Your task to perform on an android device: open device folders in google photos Image 0: 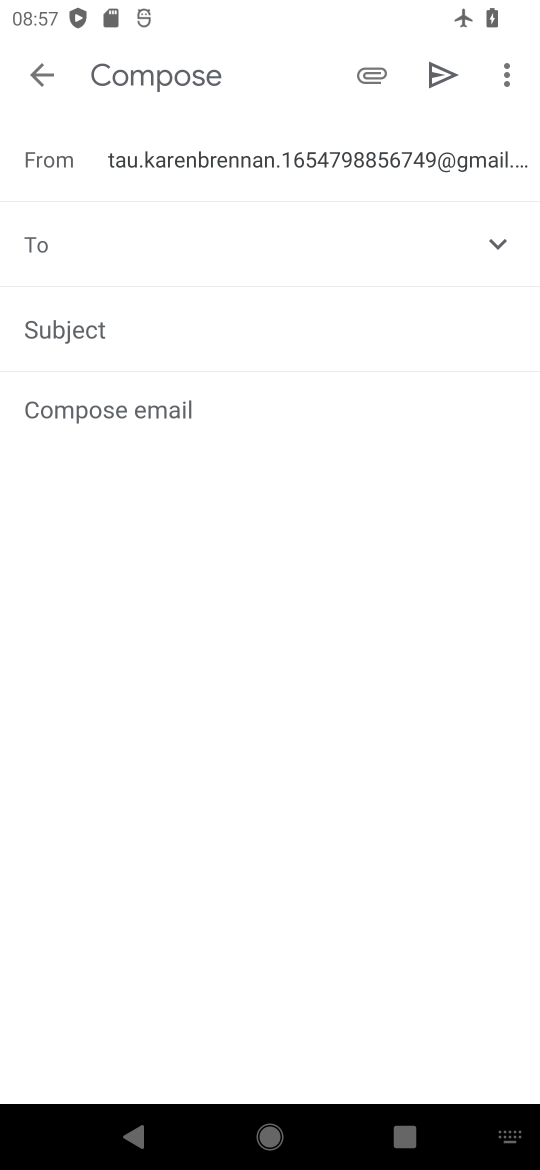
Step 0: press home button
Your task to perform on an android device: open device folders in google photos Image 1: 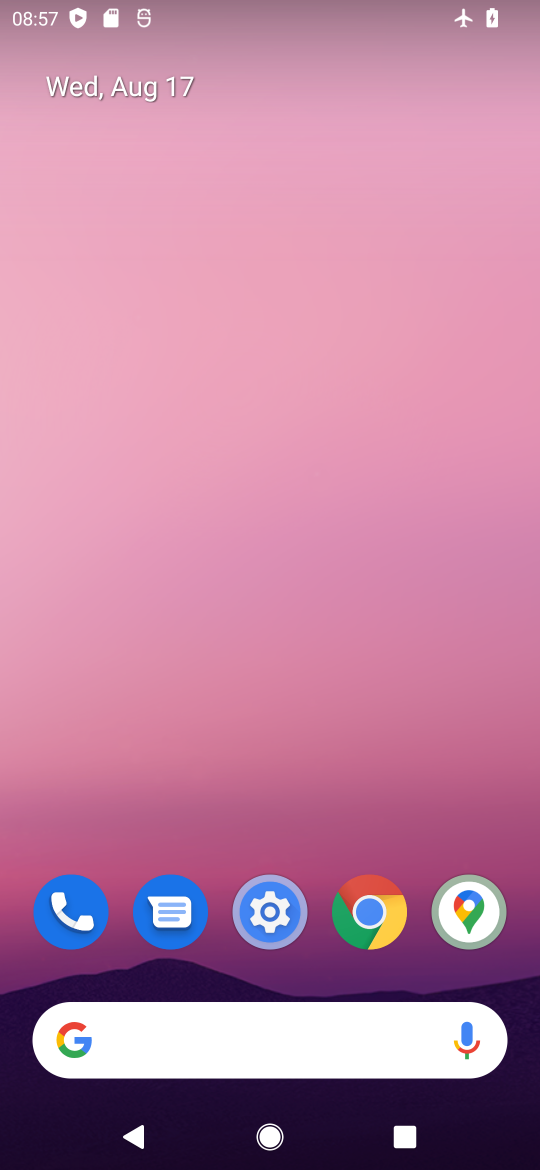
Step 1: drag from (200, 1021) to (200, 178)
Your task to perform on an android device: open device folders in google photos Image 2: 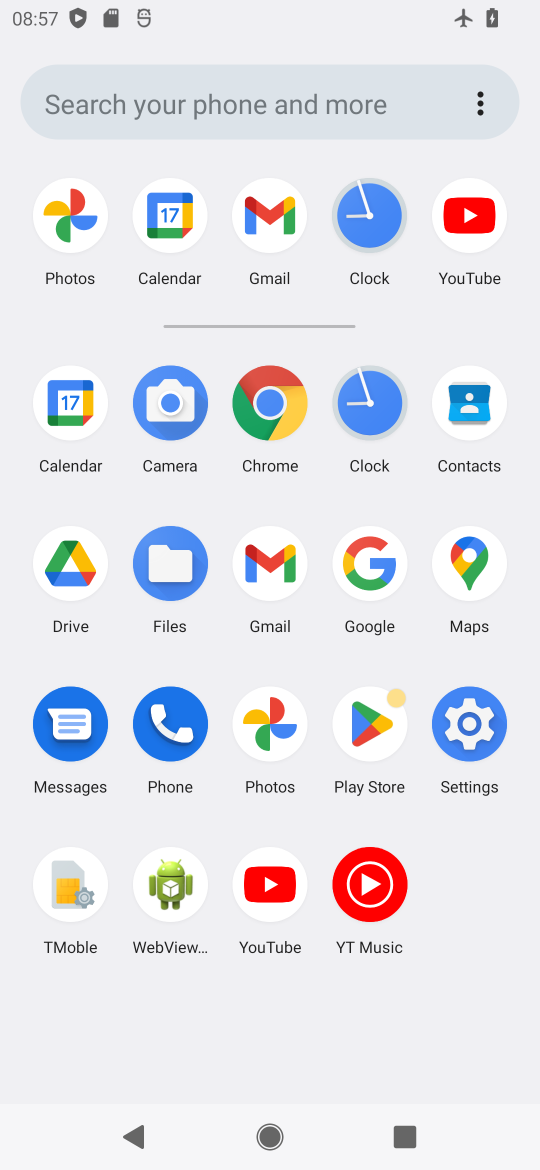
Step 2: click (277, 721)
Your task to perform on an android device: open device folders in google photos Image 3: 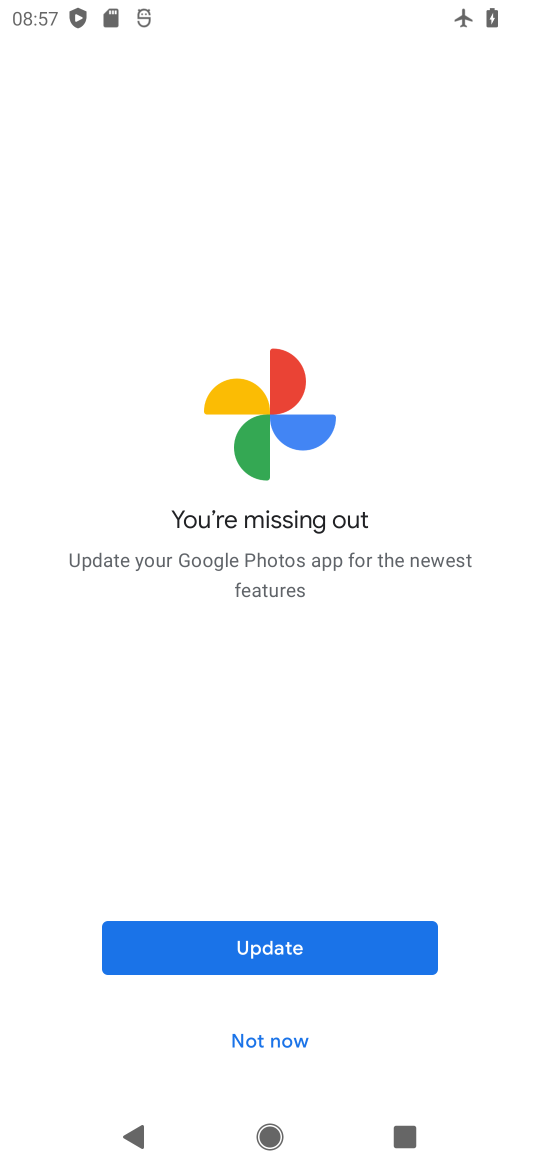
Step 3: click (248, 934)
Your task to perform on an android device: open device folders in google photos Image 4: 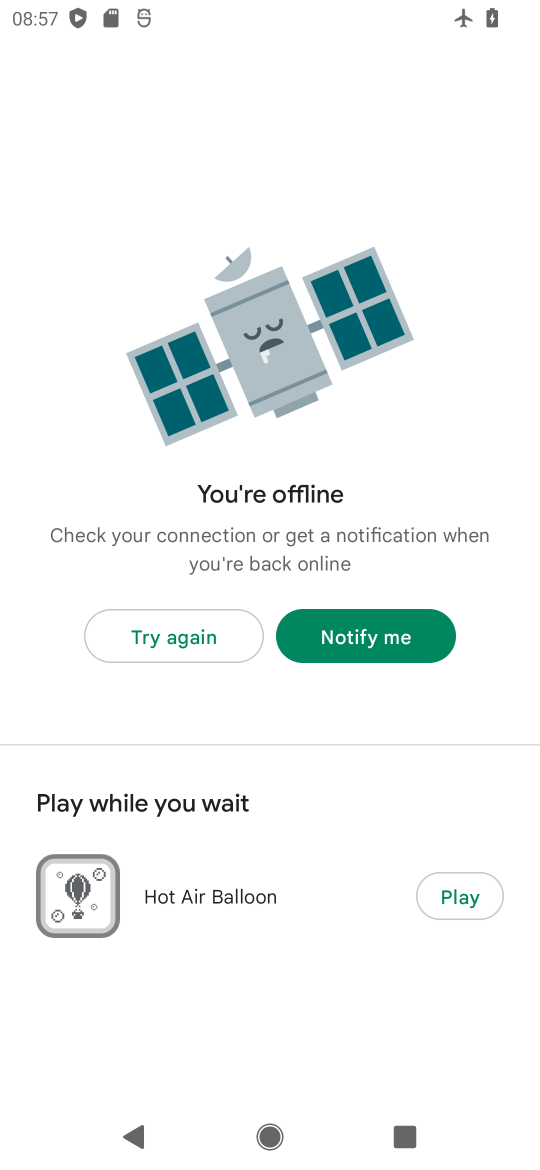
Step 4: click (209, 649)
Your task to perform on an android device: open device folders in google photos Image 5: 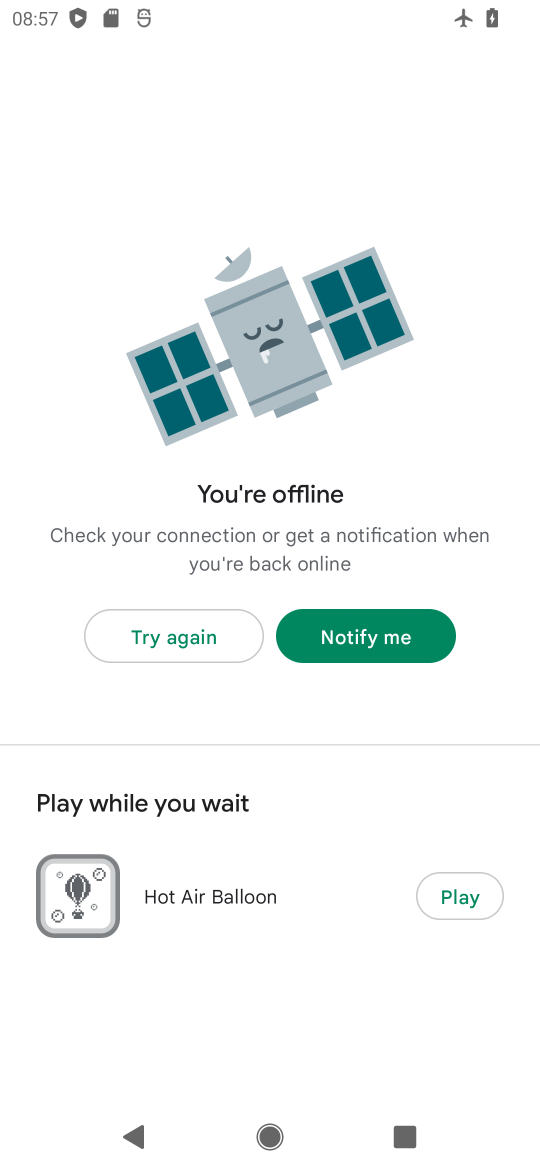
Step 5: task complete